Your task to perform on an android device: toggle notifications settings in the gmail app Image 0: 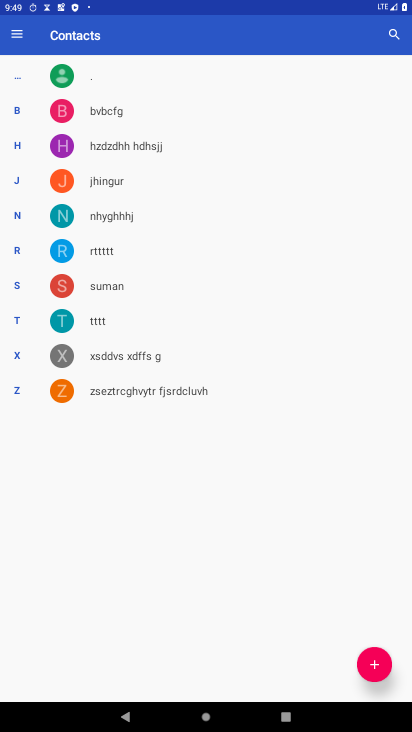
Step 0: press home button
Your task to perform on an android device: toggle notifications settings in the gmail app Image 1: 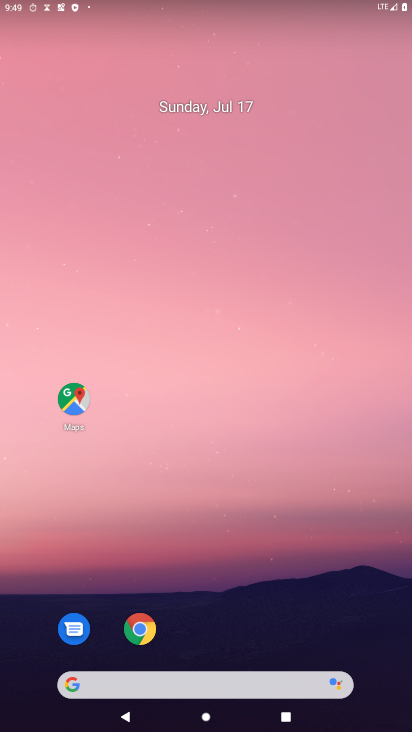
Step 1: drag from (219, 664) to (218, 51)
Your task to perform on an android device: toggle notifications settings in the gmail app Image 2: 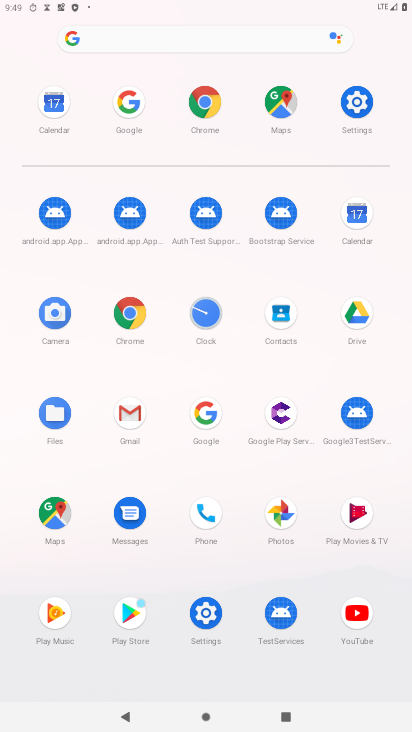
Step 2: click (127, 414)
Your task to perform on an android device: toggle notifications settings in the gmail app Image 3: 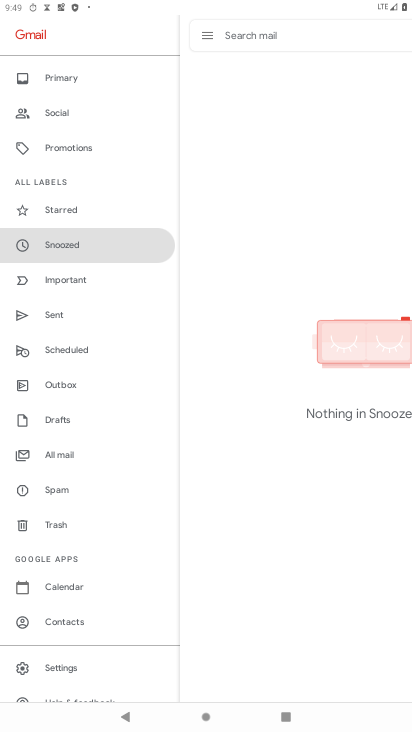
Step 3: click (62, 663)
Your task to perform on an android device: toggle notifications settings in the gmail app Image 4: 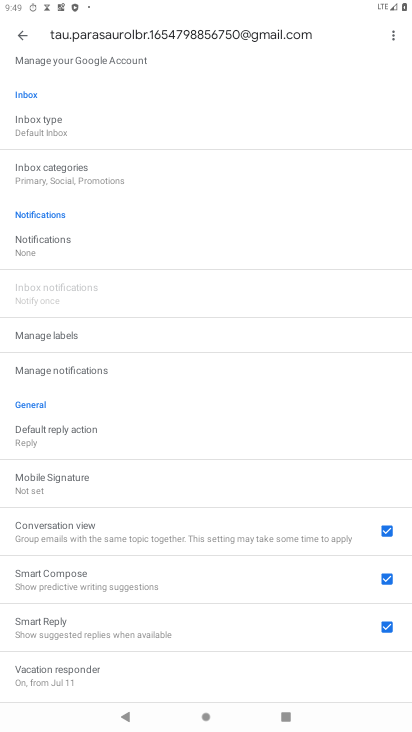
Step 4: click (47, 237)
Your task to perform on an android device: toggle notifications settings in the gmail app Image 5: 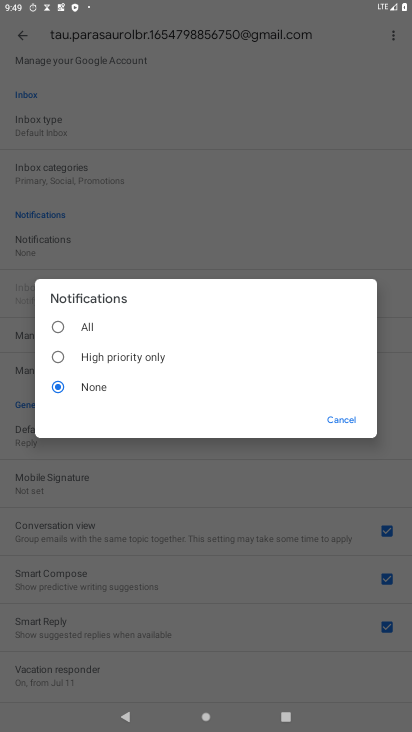
Step 5: click (55, 326)
Your task to perform on an android device: toggle notifications settings in the gmail app Image 6: 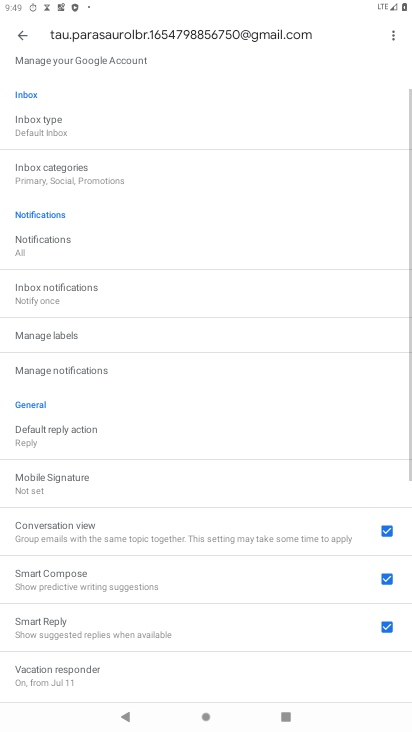
Step 6: task complete